Your task to perform on an android device: turn notification dots on Image 0: 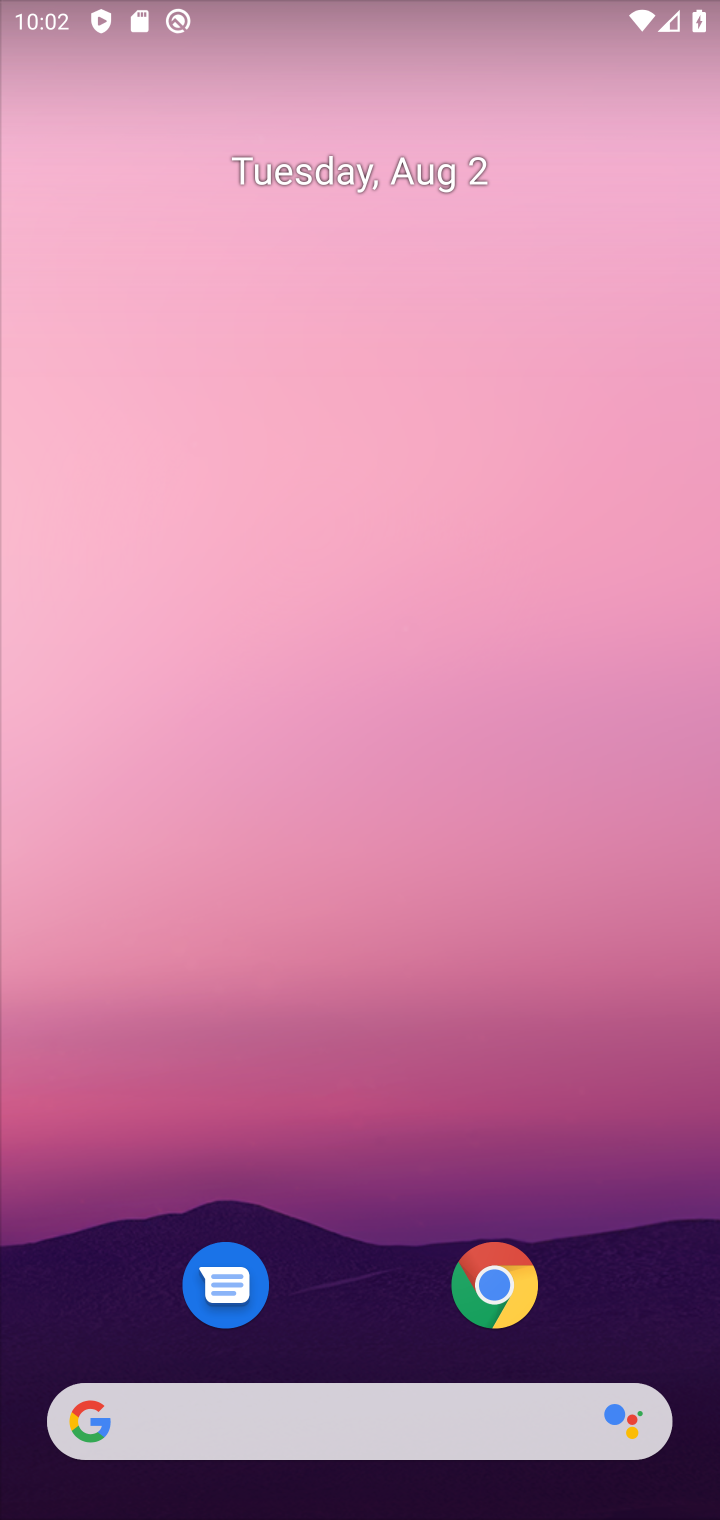
Step 0: drag from (369, 1262) to (375, 393)
Your task to perform on an android device: turn notification dots on Image 1: 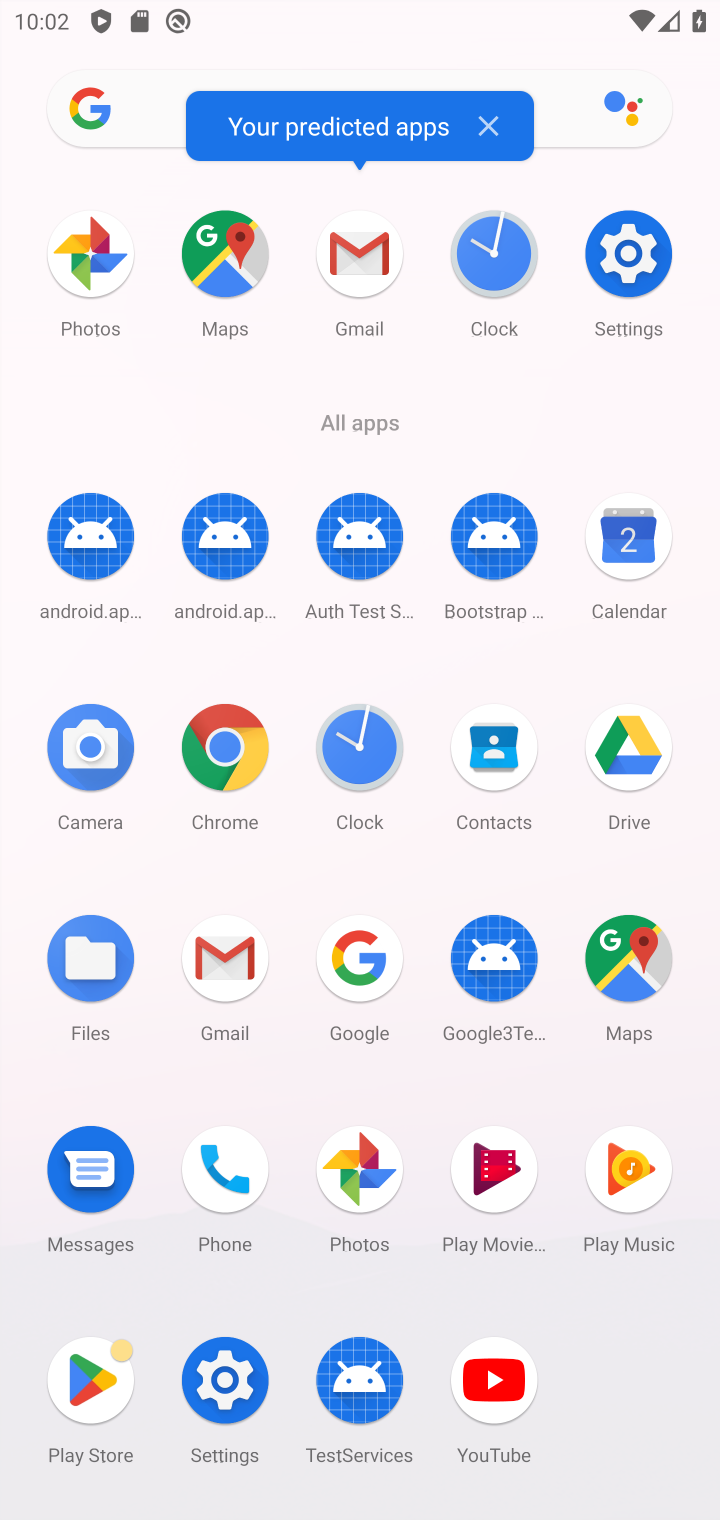
Step 1: click (642, 238)
Your task to perform on an android device: turn notification dots on Image 2: 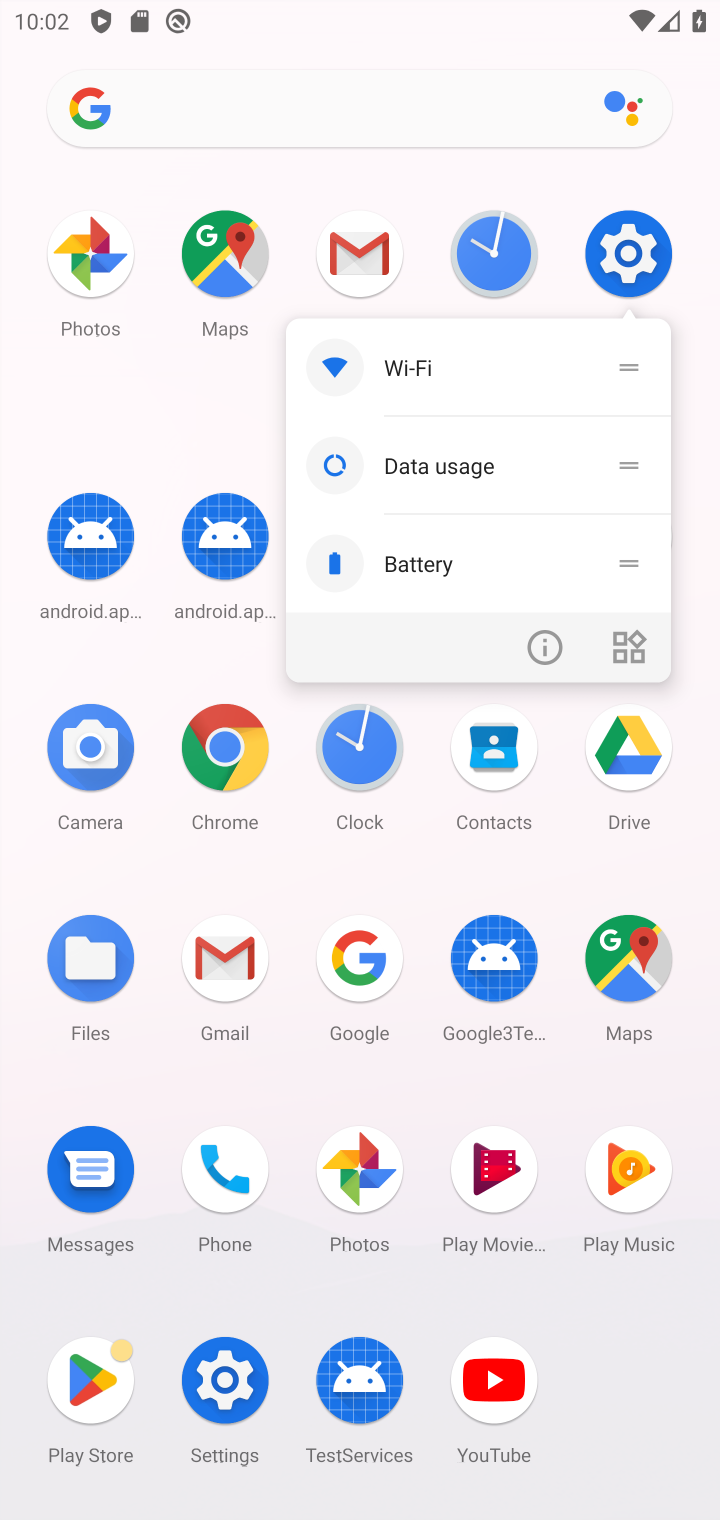
Step 2: click (544, 645)
Your task to perform on an android device: turn notification dots on Image 3: 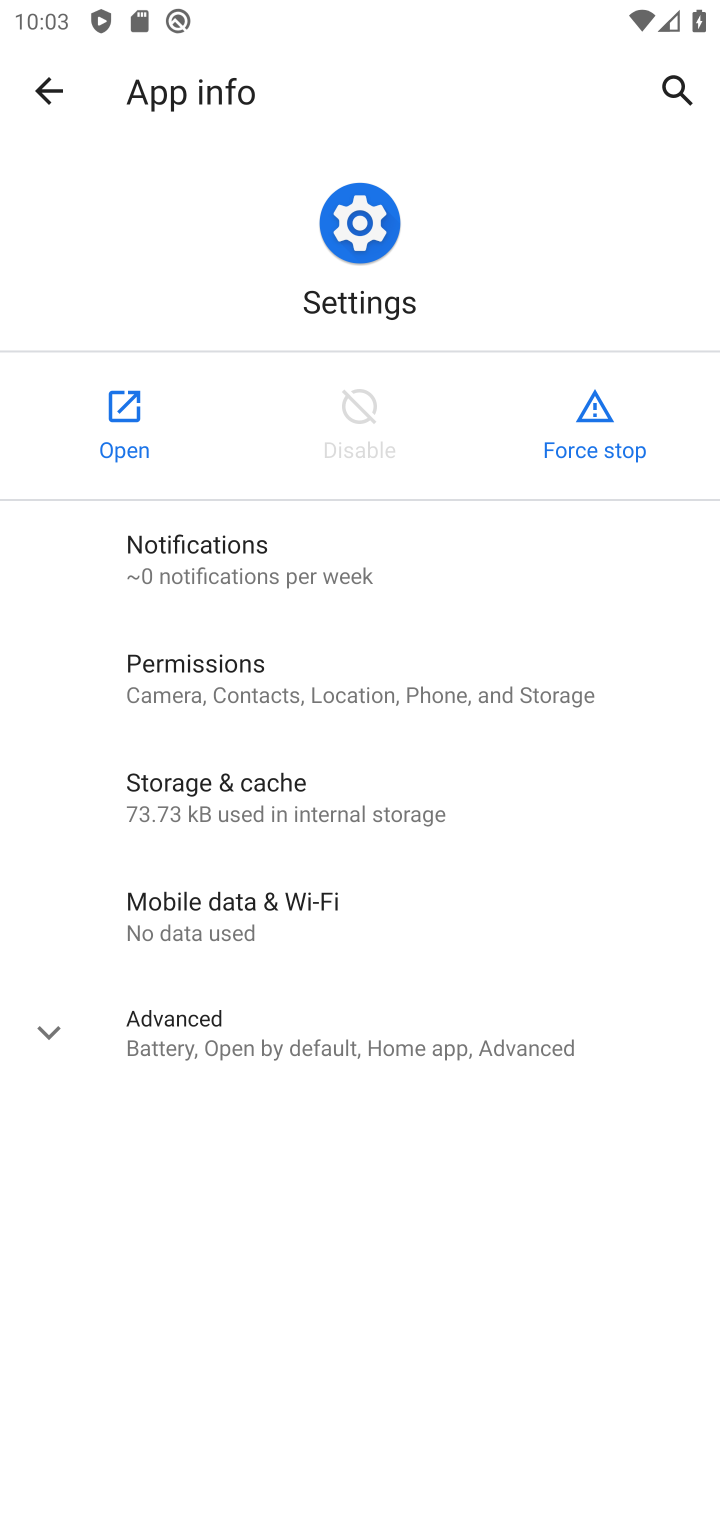
Step 3: click (139, 449)
Your task to perform on an android device: turn notification dots on Image 4: 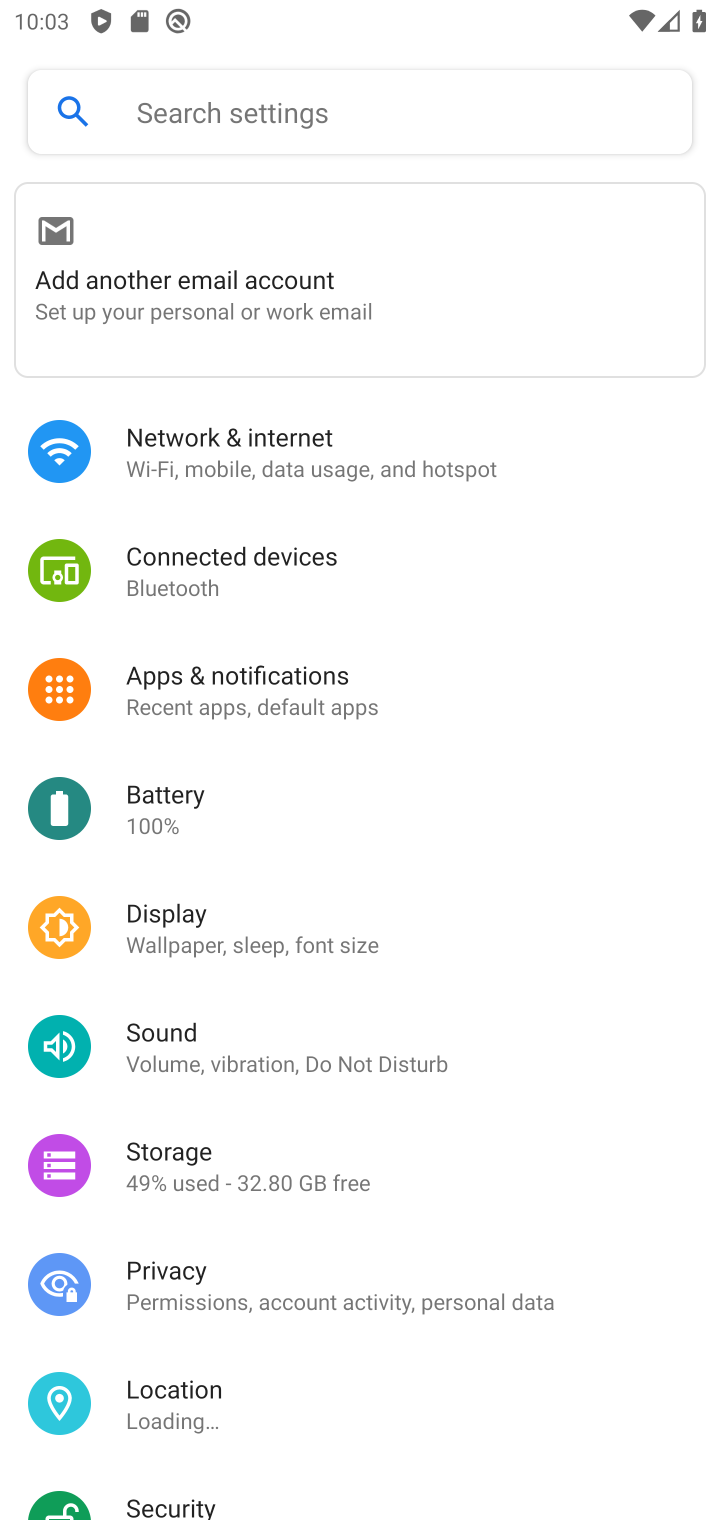
Step 4: click (284, 704)
Your task to perform on an android device: turn notification dots on Image 5: 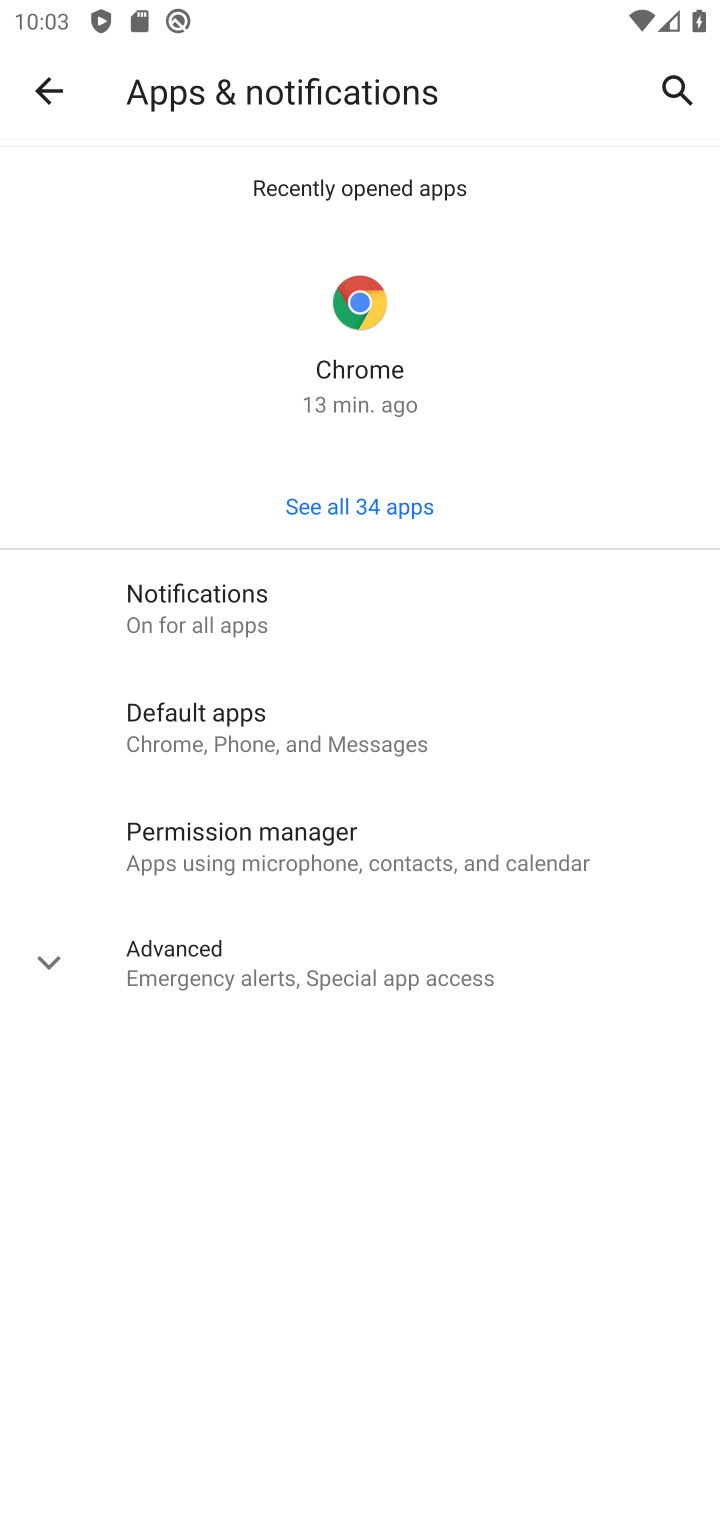
Step 5: click (332, 586)
Your task to perform on an android device: turn notification dots on Image 6: 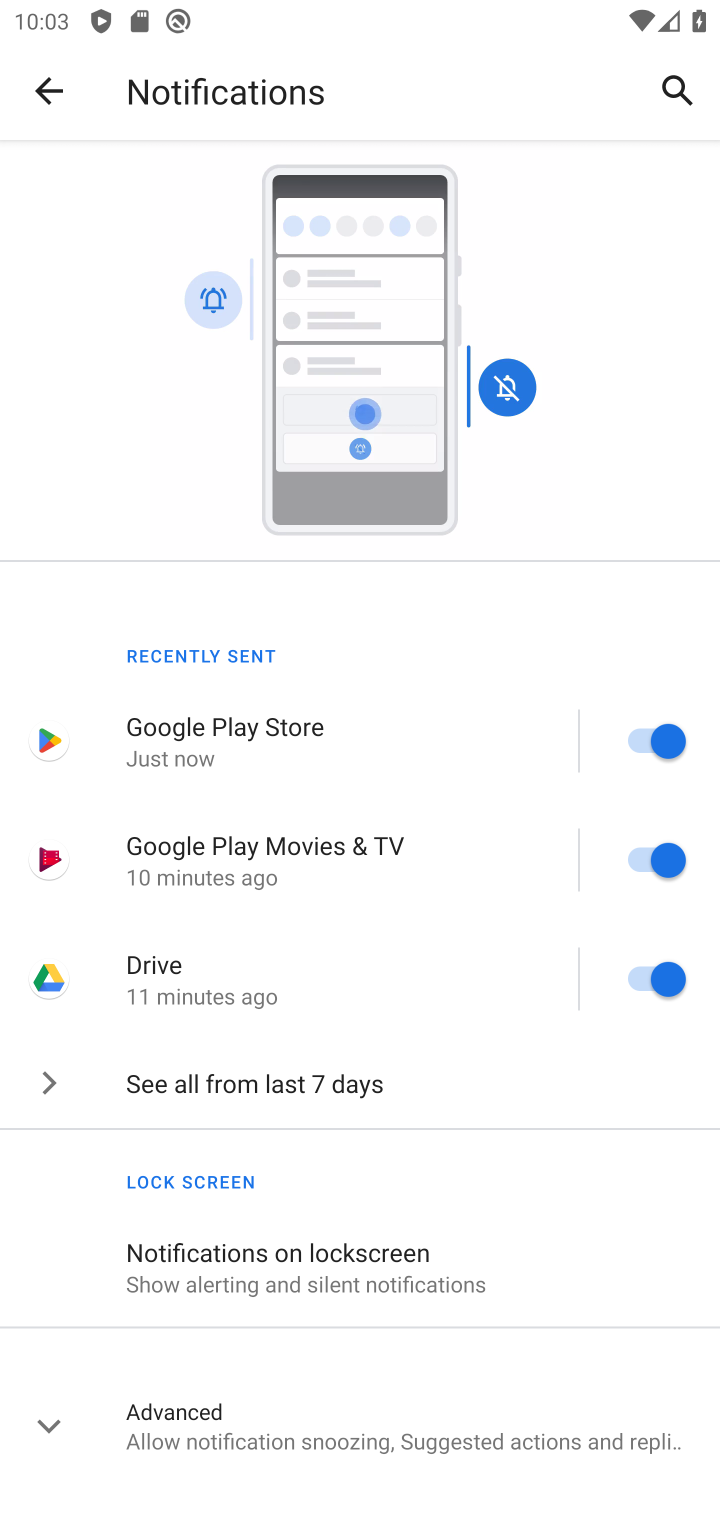
Step 6: drag from (300, 1434) to (698, 347)
Your task to perform on an android device: turn notification dots on Image 7: 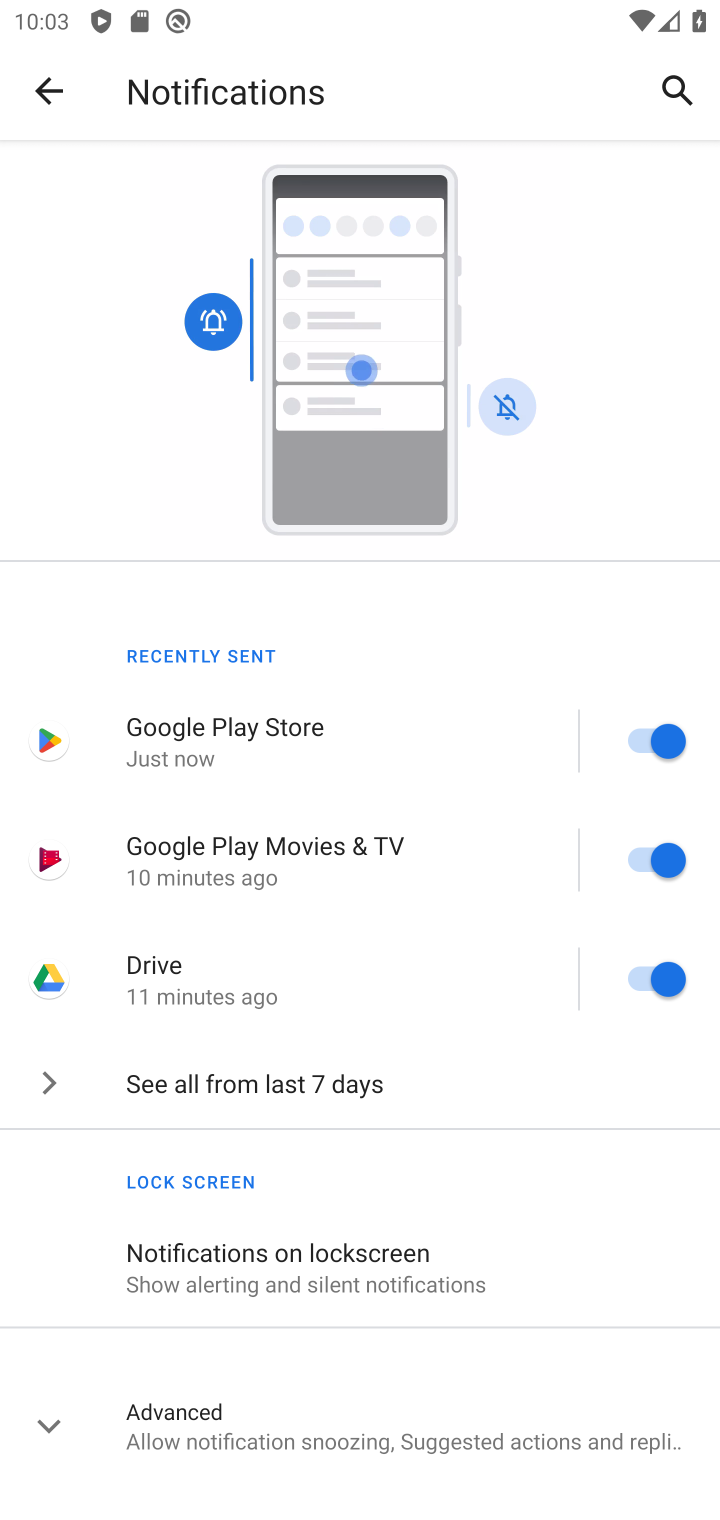
Step 7: click (289, 1421)
Your task to perform on an android device: turn notification dots on Image 8: 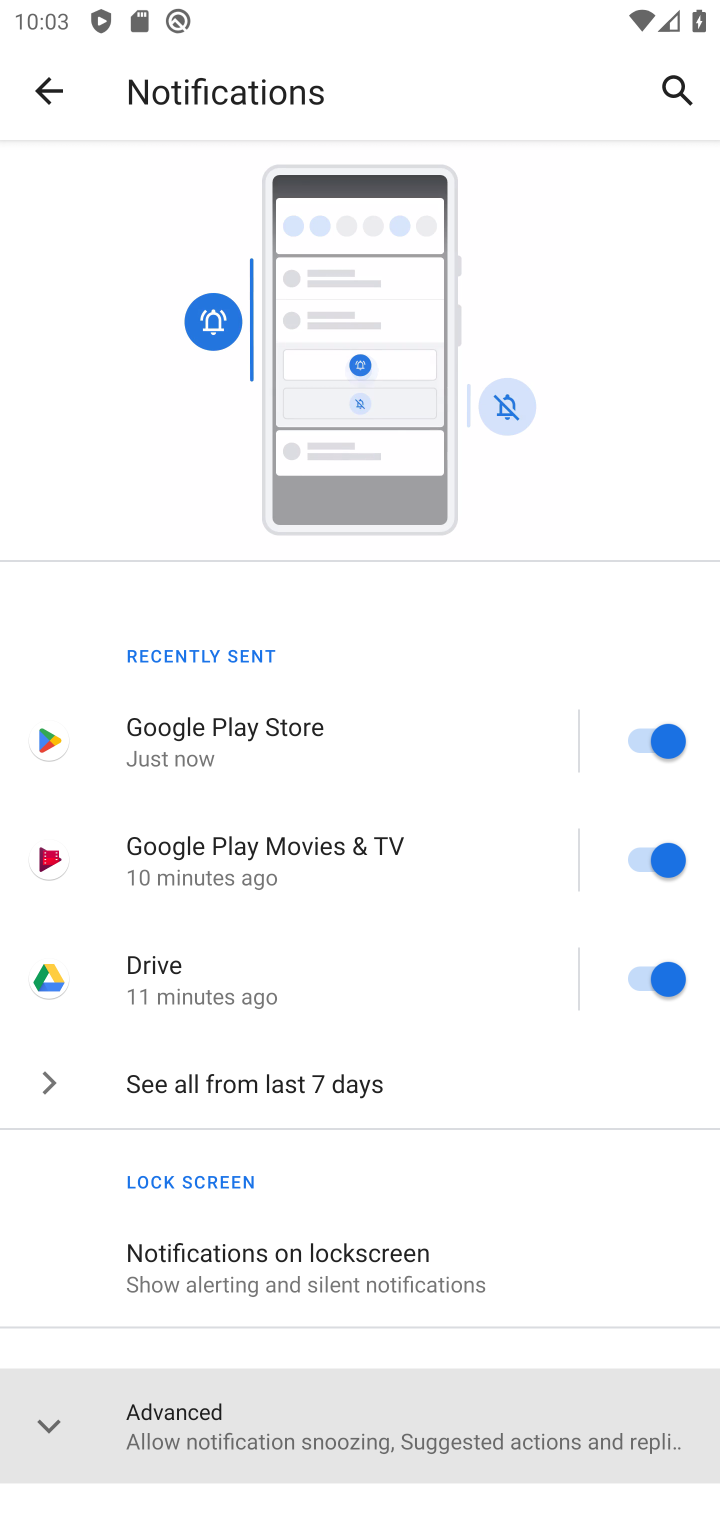
Step 8: task complete